Your task to perform on an android device: Turn off the flashlight Image 0: 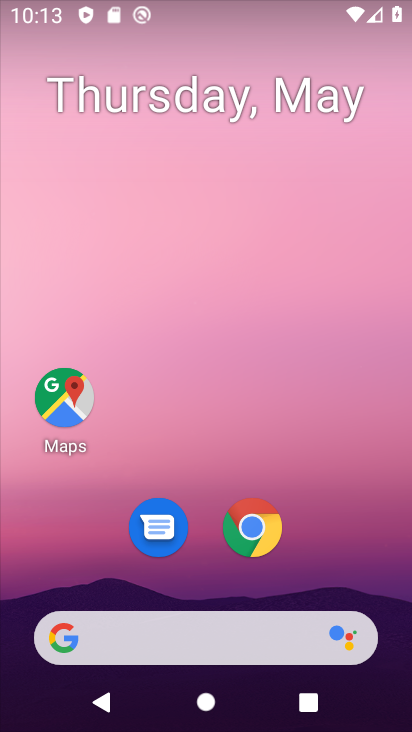
Step 0: drag from (212, 719) to (205, 37)
Your task to perform on an android device: Turn off the flashlight Image 1: 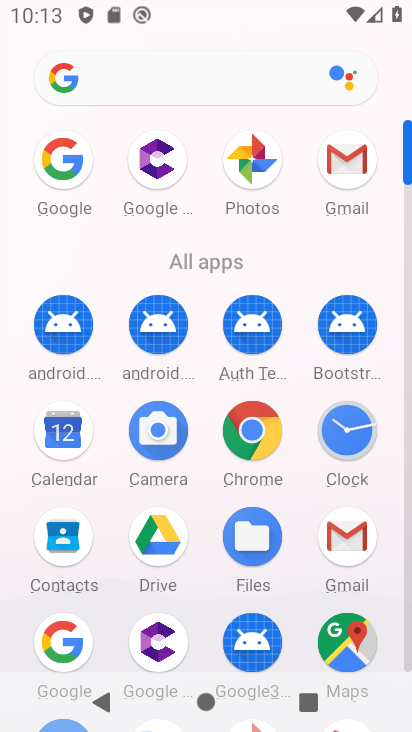
Step 1: drag from (126, 616) to (125, 238)
Your task to perform on an android device: Turn off the flashlight Image 2: 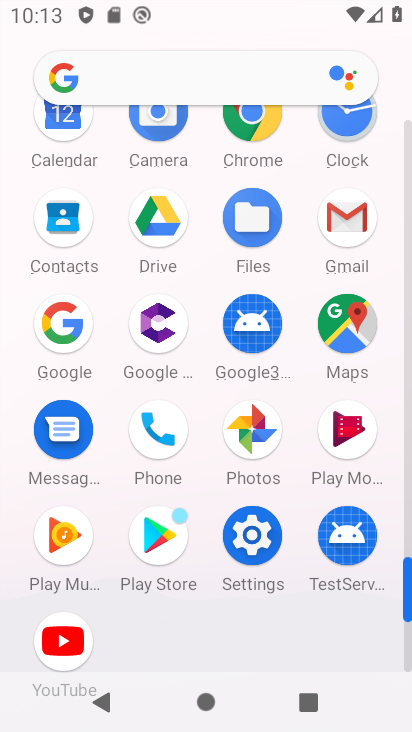
Step 2: click (254, 537)
Your task to perform on an android device: Turn off the flashlight Image 3: 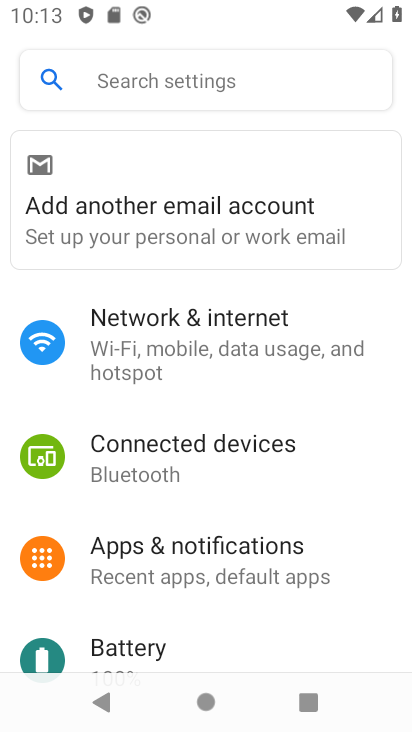
Step 3: task complete